Your task to perform on an android device: check storage Image 0: 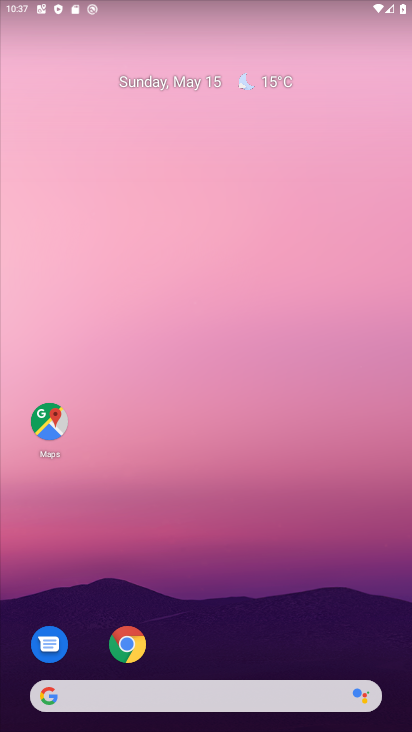
Step 0: drag from (306, 628) to (342, 145)
Your task to perform on an android device: check storage Image 1: 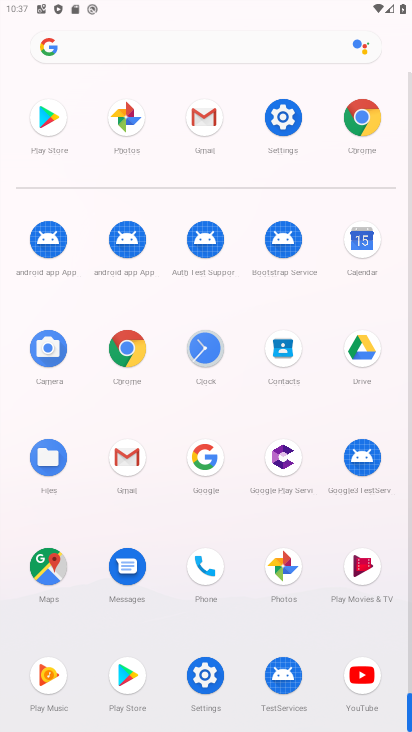
Step 1: click (286, 129)
Your task to perform on an android device: check storage Image 2: 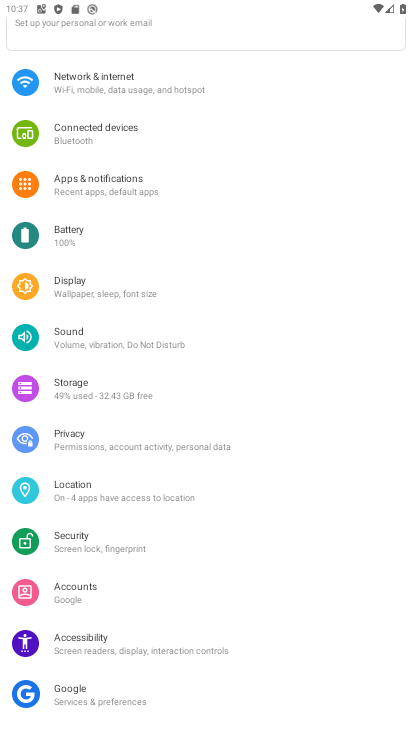
Step 2: click (116, 386)
Your task to perform on an android device: check storage Image 3: 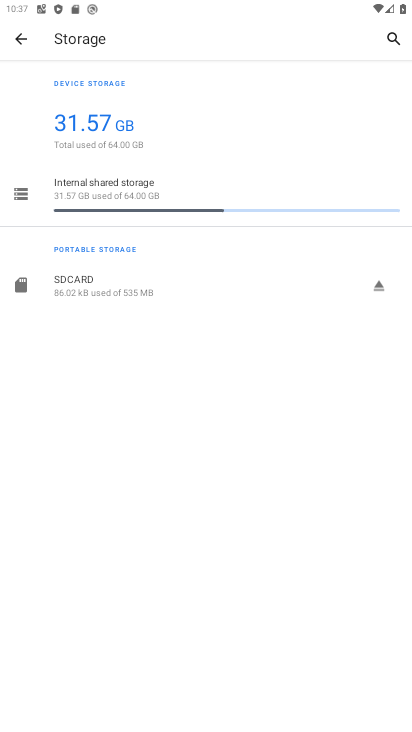
Step 3: task complete